Your task to perform on an android device: toggle notifications settings in the gmail app Image 0: 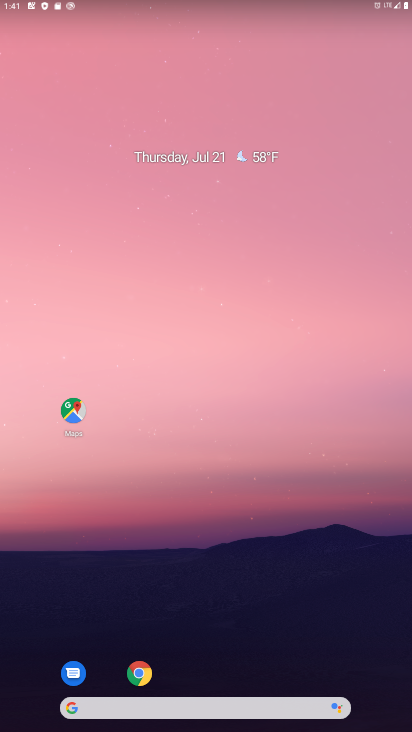
Step 0: drag from (218, 358) to (221, 293)
Your task to perform on an android device: toggle notifications settings in the gmail app Image 1: 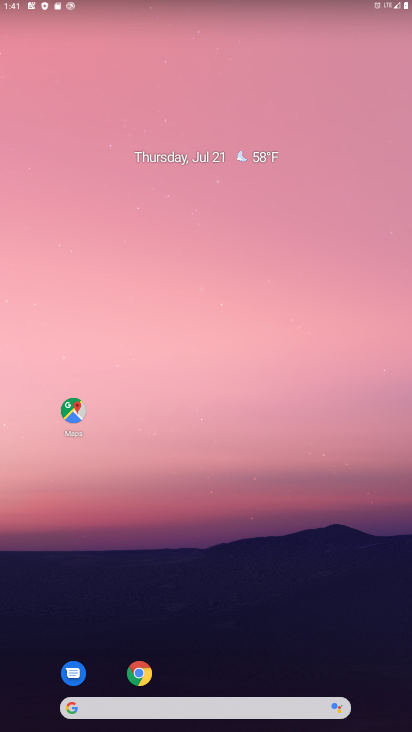
Step 1: drag from (269, 641) to (270, 257)
Your task to perform on an android device: toggle notifications settings in the gmail app Image 2: 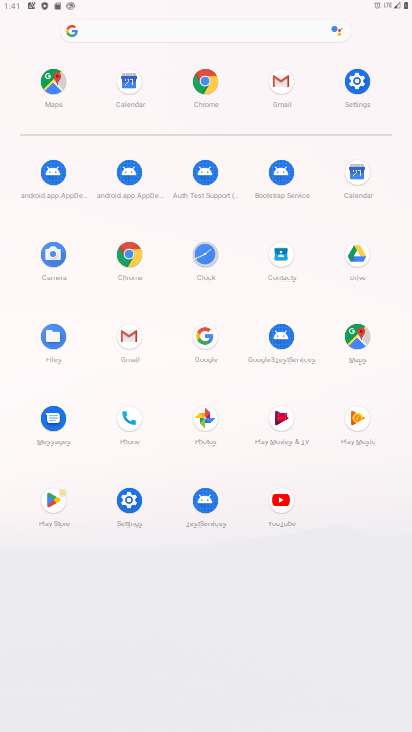
Step 2: click (271, 77)
Your task to perform on an android device: toggle notifications settings in the gmail app Image 3: 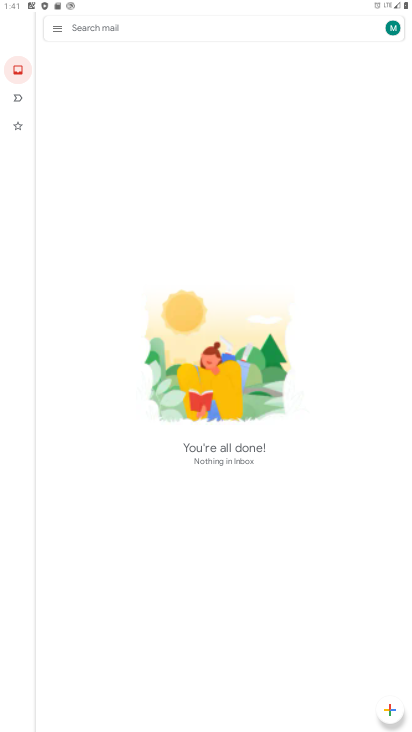
Step 3: click (49, 27)
Your task to perform on an android device: toggle notifications settings in the gmail app Image 4: 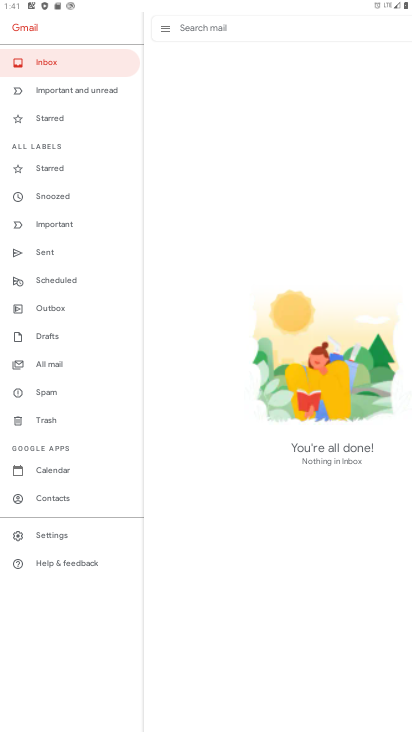
Step 4: click (51, 526)
Your task to perform on an android device: toggle notifications settings in the gmail app Image 5: 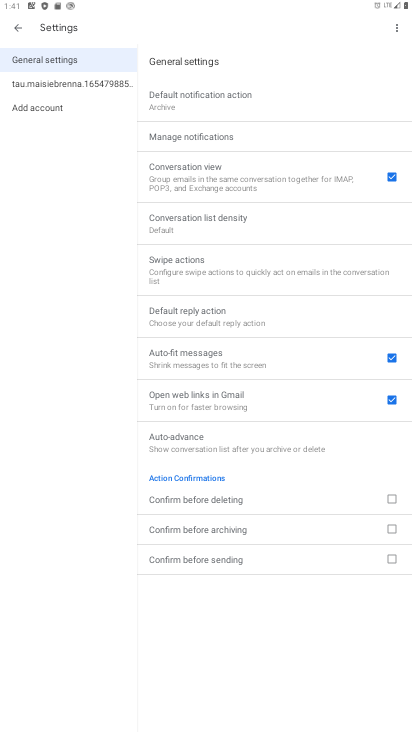
Step 5: click (63, 92)
Your task to perform on an android device: toggle notifications settings in the gmail app Image 6: 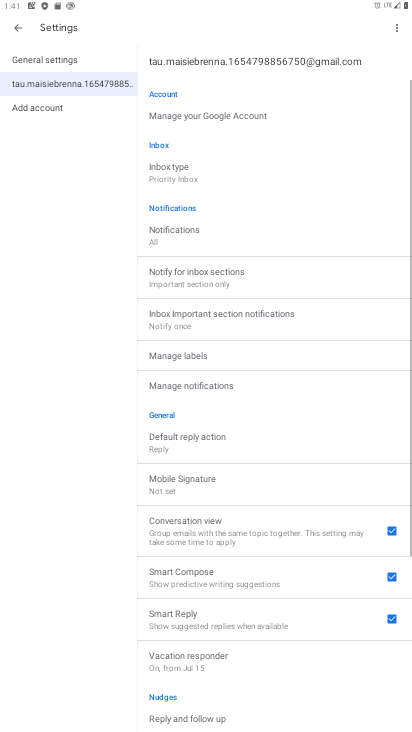
Step 6: click (203, 225)
Your task to perform on an android device: toggle notifications settings in the gmail app Image 7: 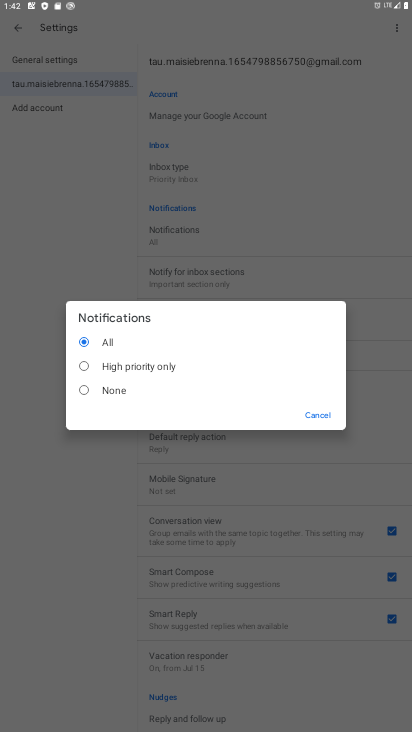
Step 7: click (105, 399)
Your task to perform on an android device: toggle notifications settings in the gmail app Image 8: 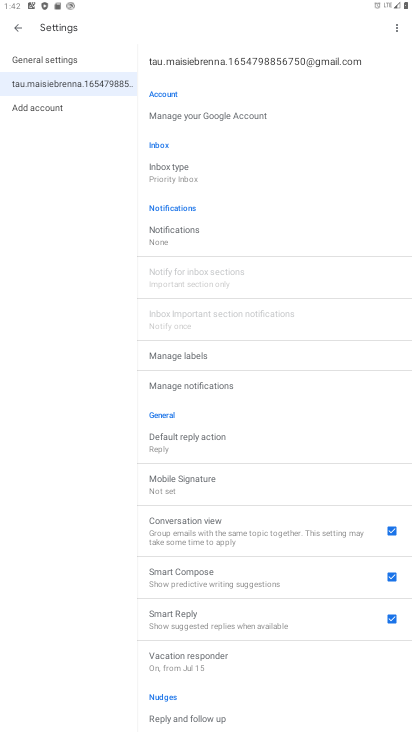
Step 8: task complete